Your task to perform on an android device: empty trash in the gmail app Image 0: 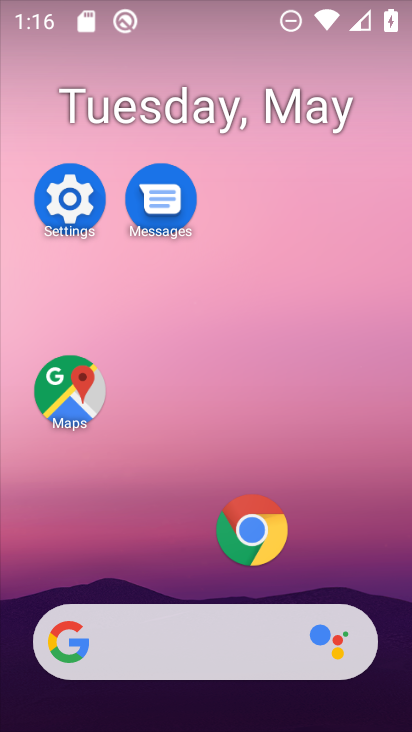
Step 0: drag from (278, 265) to (300, 213)
Your task to perform on an android device: empty trash in the gmail app Image 1: 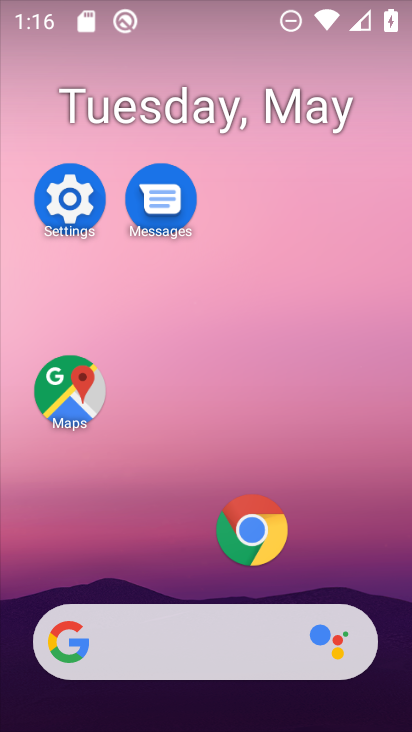
Step 1: drag from (201, 445) to (338, 110)
Your task to perform on an android device: empty trash in the gmail app Image 2: 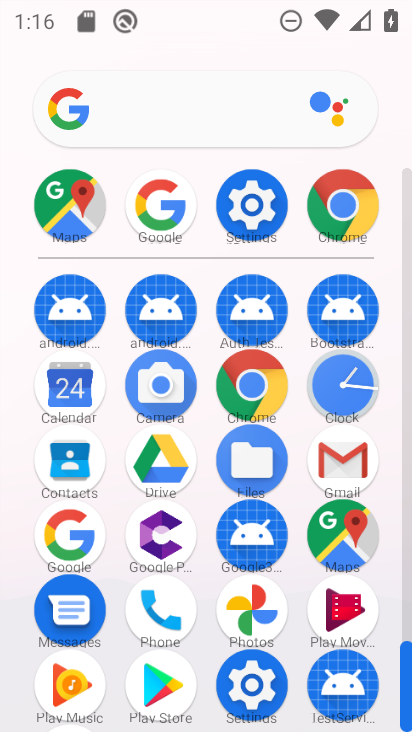
Step 2: click (327, 464)
Your task to perform on an android device: empty trash in the gmail app Image 3: 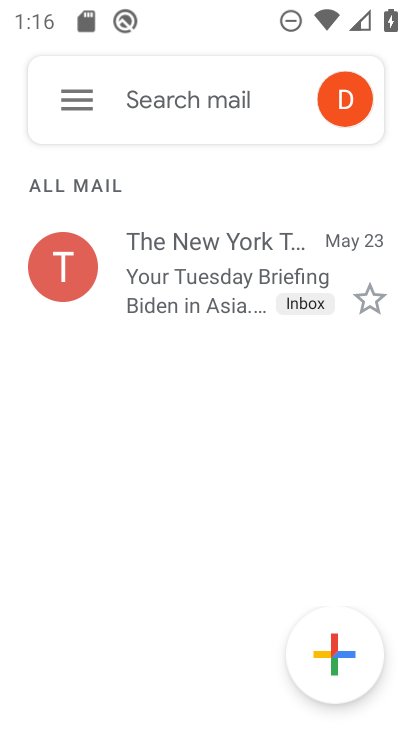
Step 3: click (80, 119)
Your task to perform on an android device: empty trash in the gmail app Image 4: 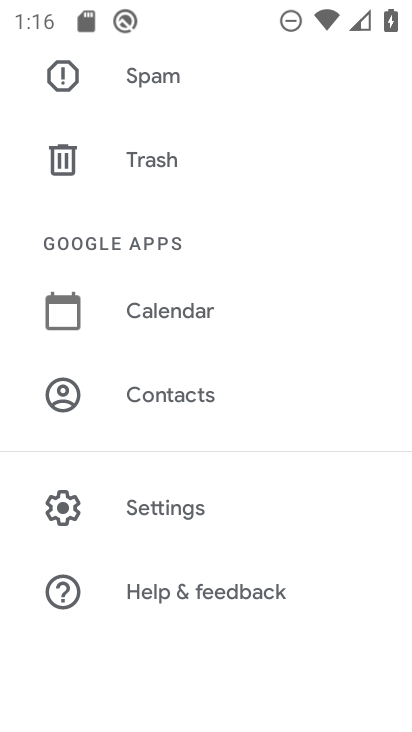
Step 4: drag from (135, 558) to (181, 361)
Your task to perform on an android device: empty trash in the gmail app Image 5: 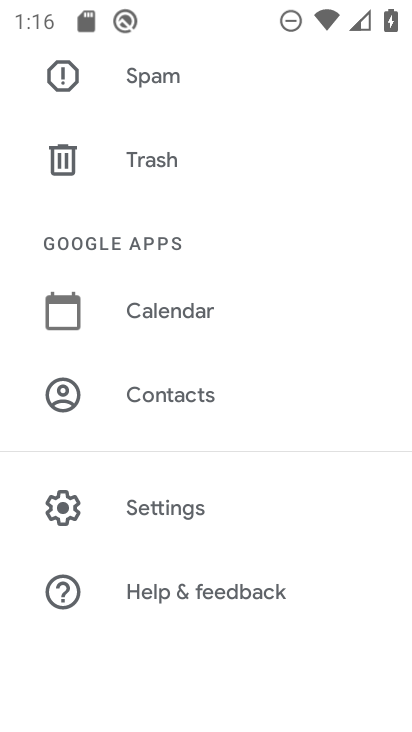
Step 5: click (173, 173)
Your task to perform on an android device: empty trash in the gmail app Image 6: 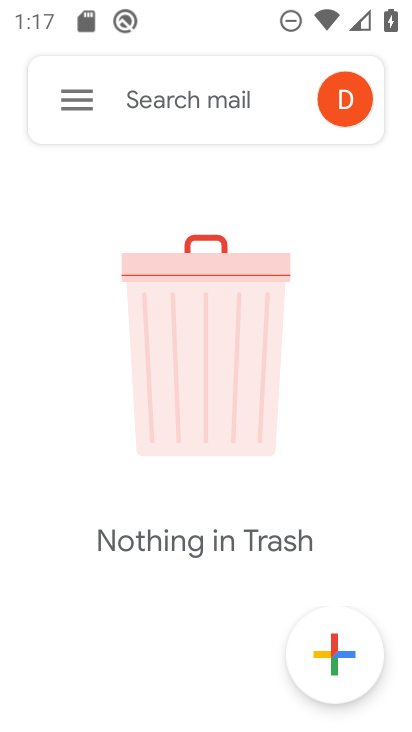
Step 6: task complete